Your task to perform on an android device: move an email to a new category in the gmail app Image 0: 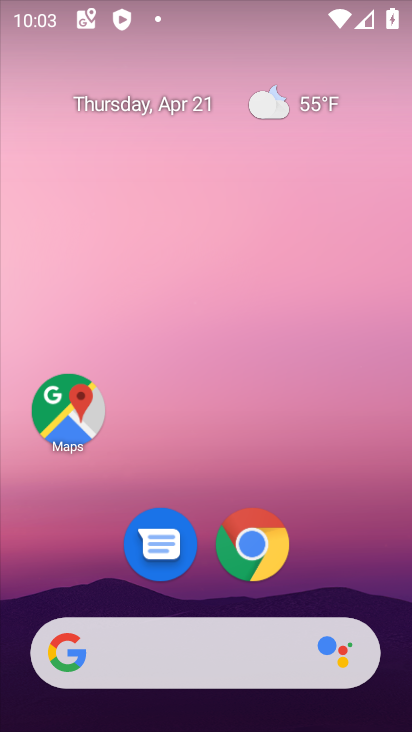
Step 0: drag from (326, 534) to (271, 2)
Your task to perform on an android device: move an email to a new category in the gmail app Image 1: 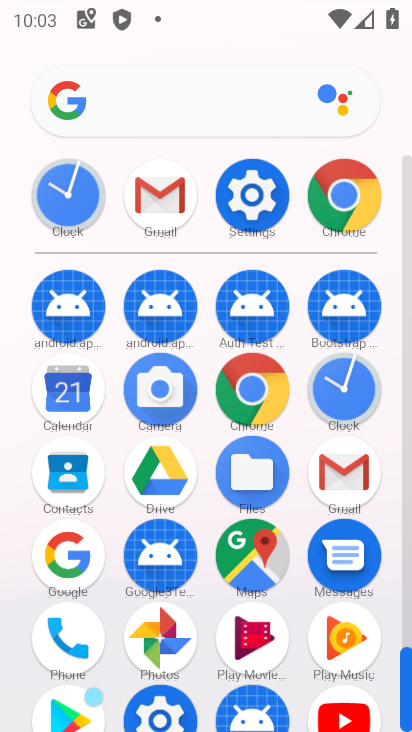
Step 1: drag from (9, 459) to (6, 196)
Your task to perform on an android device: move an email to a new category in the gmail app Image 2: 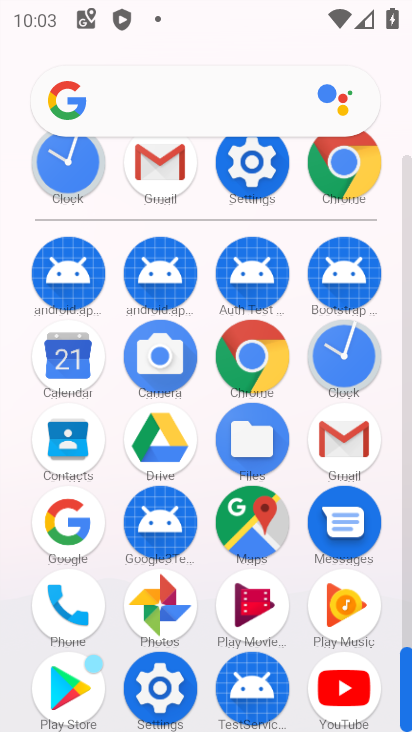
Step 2: click (339, 434)
Your task to perform on an android device: move an email to a new category in the gmail app Image 3: 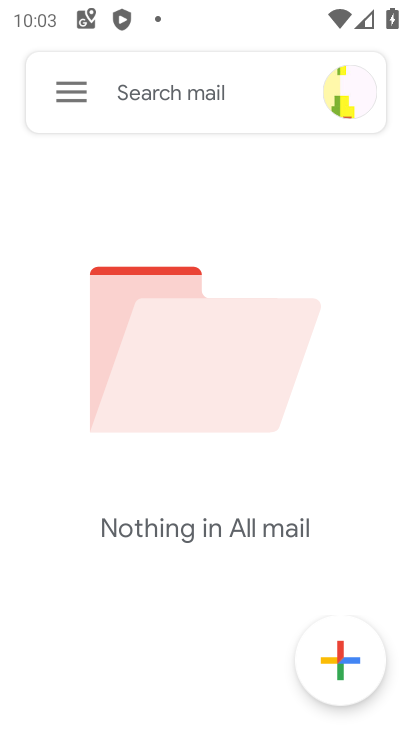
Step 3: click (90, 86)
Your task to perform on an android device: move an email to a new category in the gmail app Image 4: 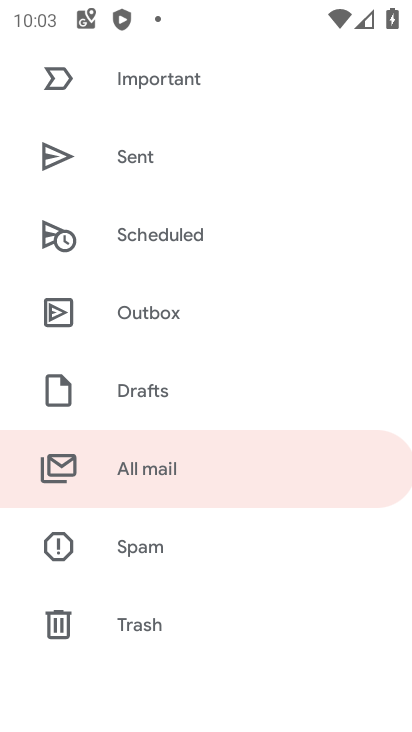
Step 4: drag from (192, 219) to (217, 513)
Your task to perform on an android device: move an email to a new category in the gmail app Image 5: 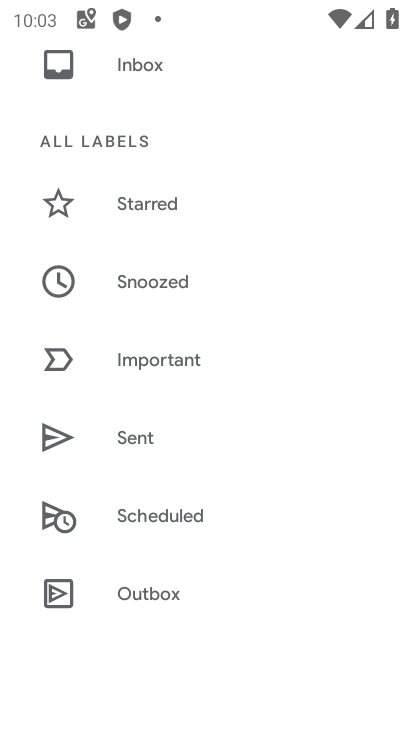
Step 5: drag from (157, 197) to (172, 565)
Your task to perform on an android device: move an email to a new category in the gmail app Image 6: 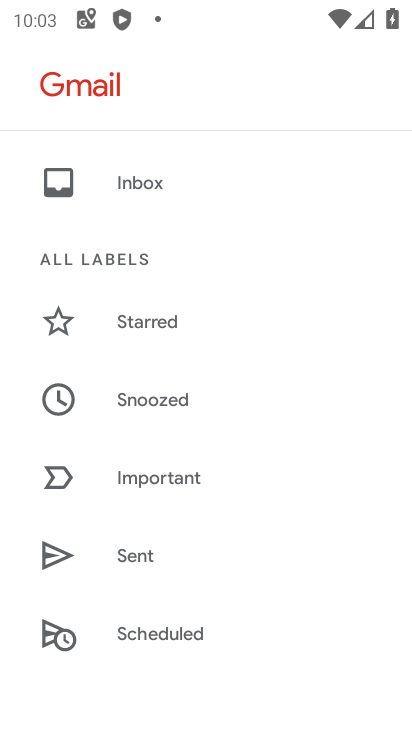
Step 6: click (157, 166)
Your task to perform on an android device: move an email to a new category in the gmail app Image 7: 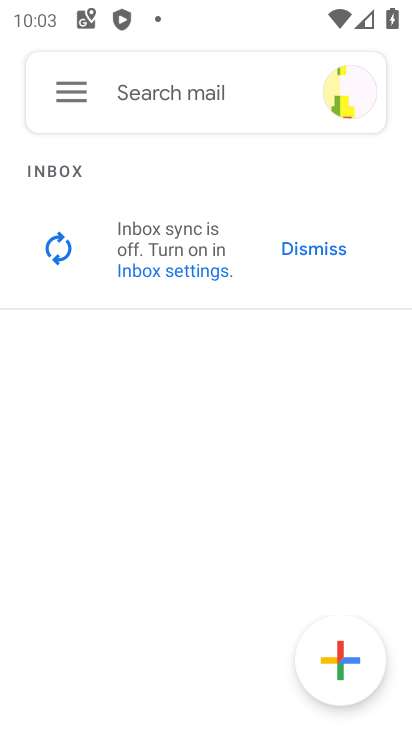
Step 7: click (65, 89)
Your task to perform on an android device: move an email to a new category in the gmail app Image 8: 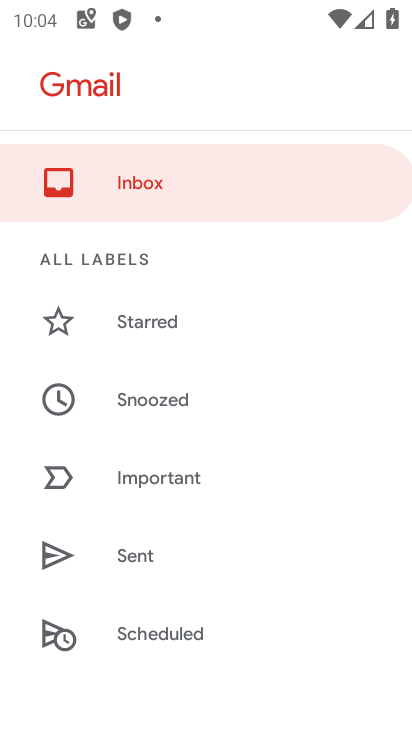
Step 8: drag from (285, 550) to (264, 122)
Your task to perform on an android device: move an email to a new category in the gmail app Image 9: 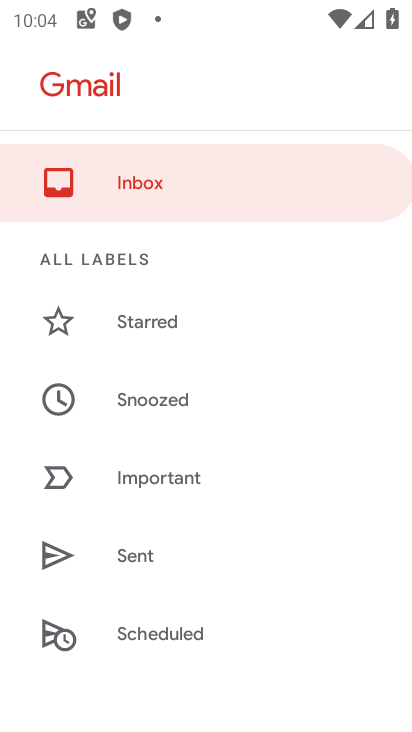
Step 9: drag from (256, 552) to (250, 286)
Your task to perform on an android device: move an email to a new category in the gmail app Image 10: 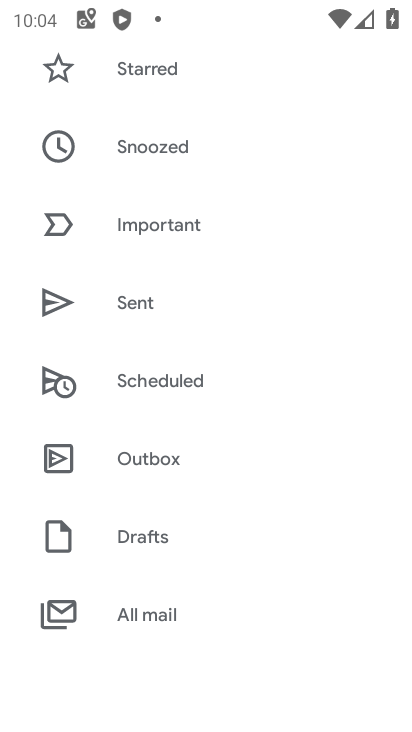
Step 10: drag from (242, 630) to (246, 225)
Your task to perform on an android device: move an email to a new category in the gmail app Image 11: 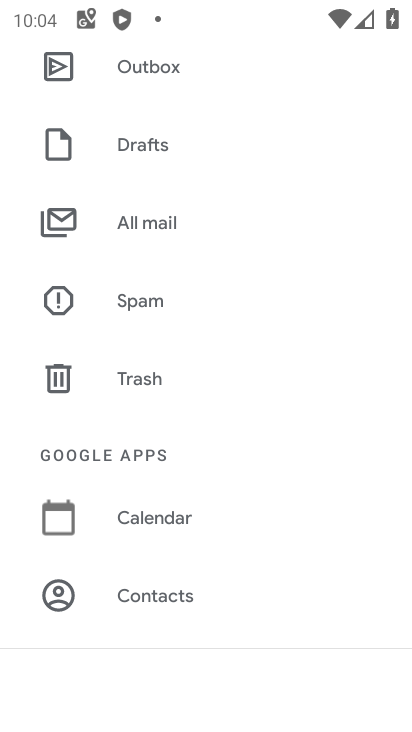
Step 11: click (173, 233)
Your task to perform on an android device: move an email to a new category in the gmail app Image 12: 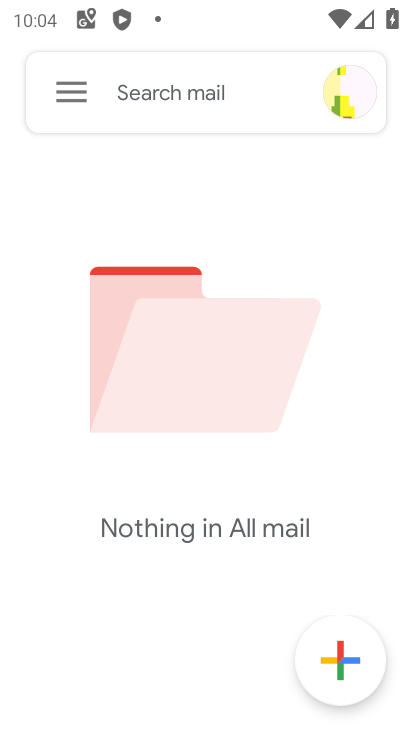
Step 12: task complete